Your task to perform on an android device: create a new album in the google photos Image 0: 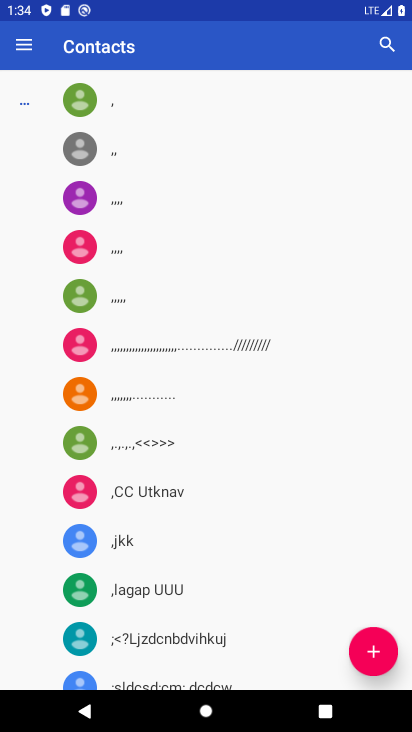
Step 0: press home button
Your task to perform on an android device: create a new album in the google photos Image 1: 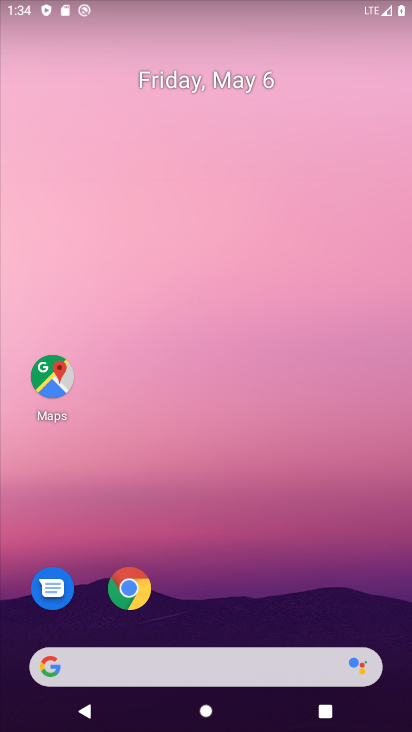
Step 1: drag from (353, 612) to (342, 130)
Your task to perform on an android device: create a new album in the google photos Image 2: 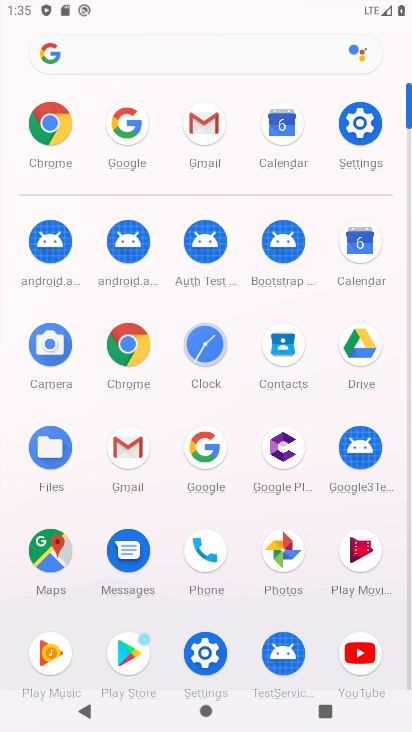
Step 2: click (272, 550)
Your task to perform on an android device: create a new album in the google photos Image 3: 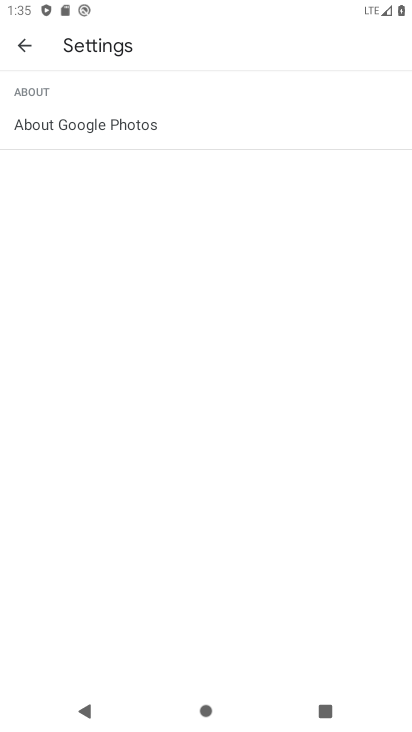
Step 3: click (20, 51)
Your task to perform on an android device: create a new album in the google photos Image 4: 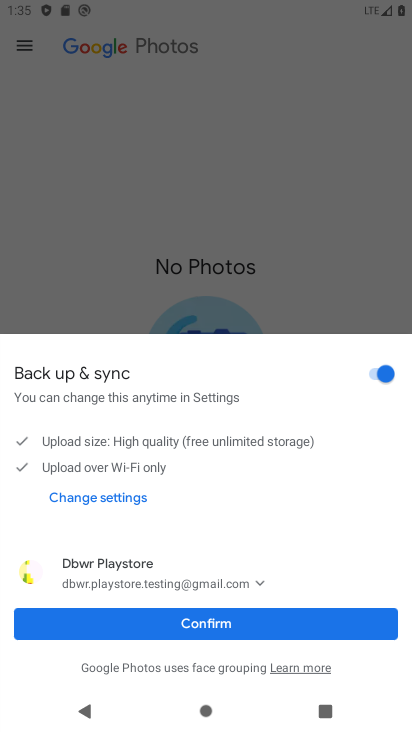
Step 4: click (235, 618)
Your task to perform on an android device: create a new album in the google photos Image 5: 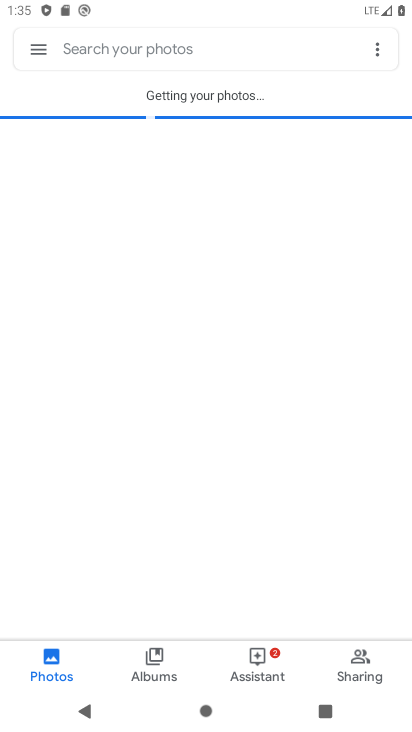
Step 5: click (272, 656)
Your task to perform on an android device: create a new album in the google photos Image 6: 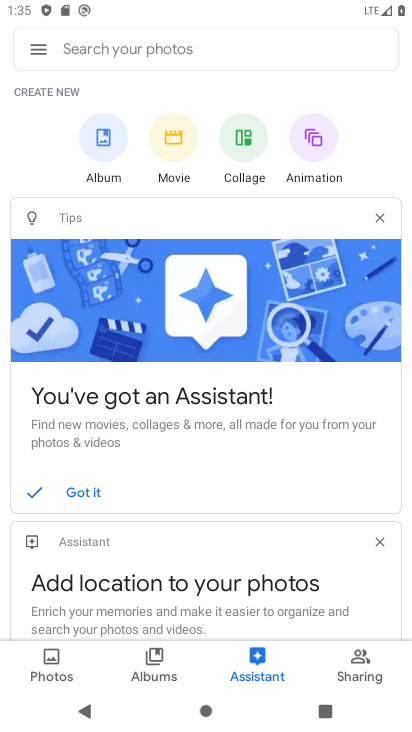
Step 6: click (151, 665)
Your task to perform on an android device: create a new album in the google photos Image 7: 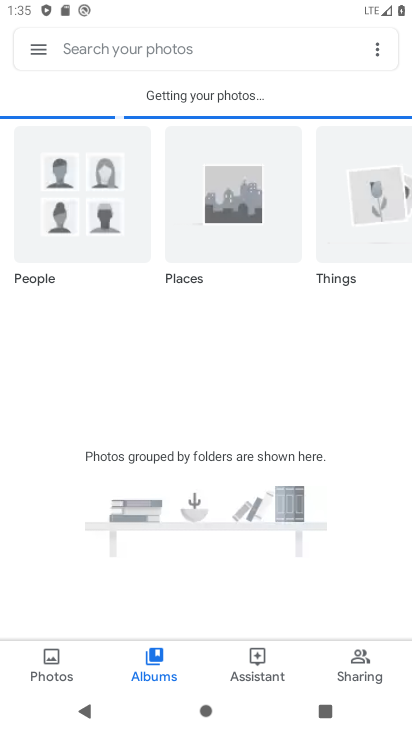
Step 7: task complete